Your task to perform on an android device: delete the emails in spam in the gmail app Image 0: 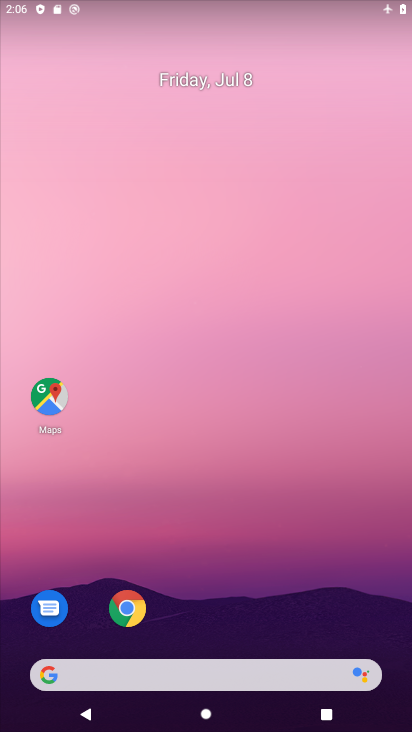
Step 0: press home button
Your task to perform on an android device: delete the emails in spam in the gmail app Image 1: 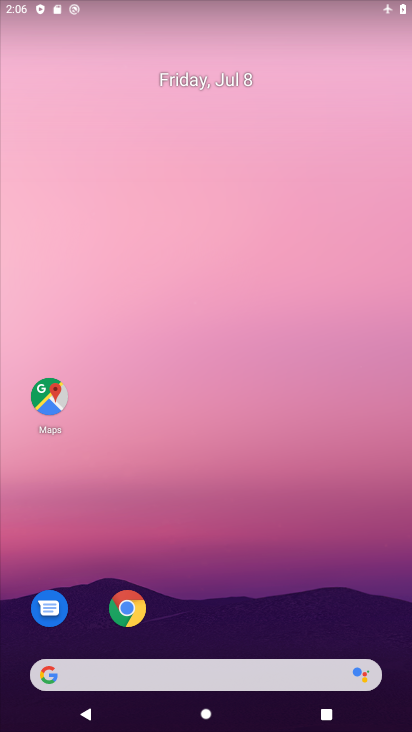
Step 1: drag from (210, 608) to (270, 92)
Your task to perform on an android device: delete the emails in spam in the gmail app Image 2: 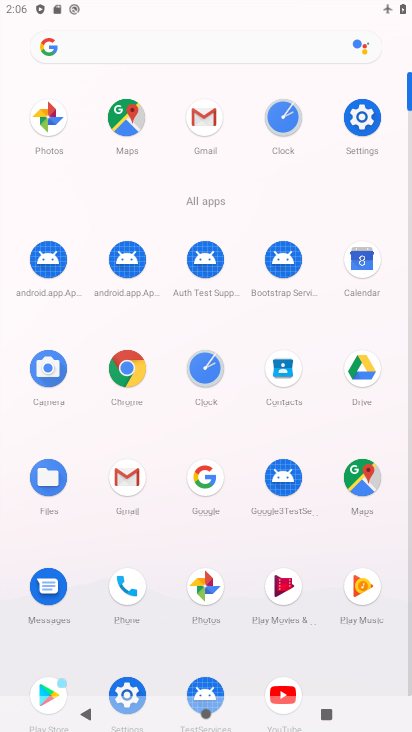
Step 2: click (205, 123)
Your task to perform on an android device: delete the emails in spam in the gmail app Image 3: 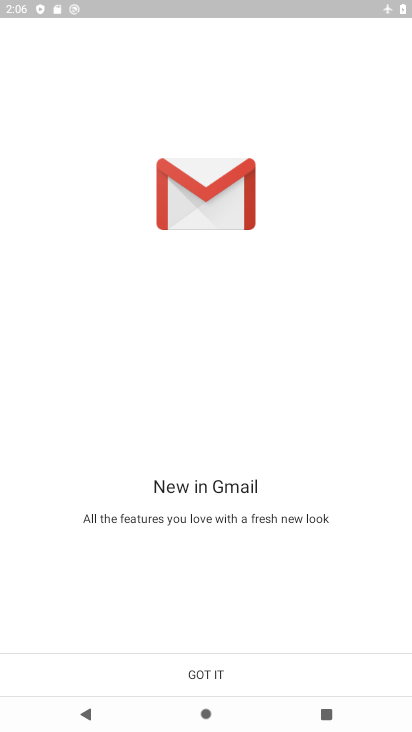
Step 3: click (188, 684)
Your task to perform on an android device: delete the emails in spam in the gmail app Image 4: 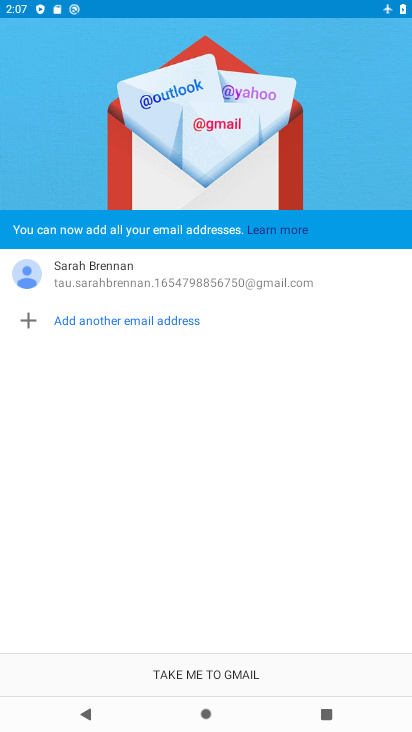
Step 4: click (221, 683)
Your task to perform on an android device: delete the emails in spam in the gmail app Image 5: 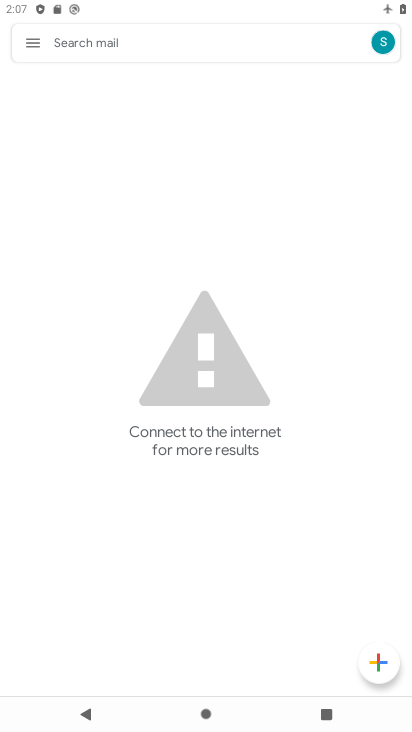
Step 5: task complete